Your task to perform on an android device: Open accessibility settings Image 0: 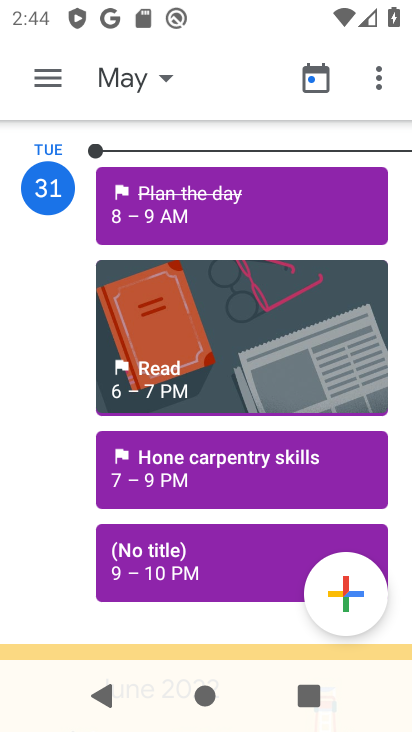
Step 0: press home button
Your task to perform on an android device: Open accessibility settings Image 1: 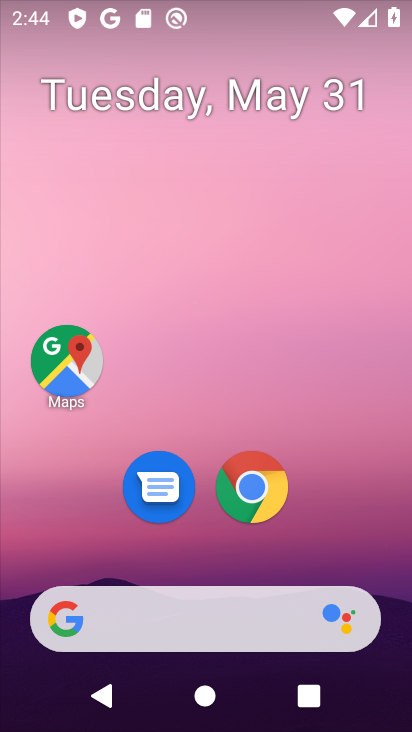
Step 1: drag from (120, 590) to (255, 69)
Your task to perform on an android device: Open accessibility settings Image 2: 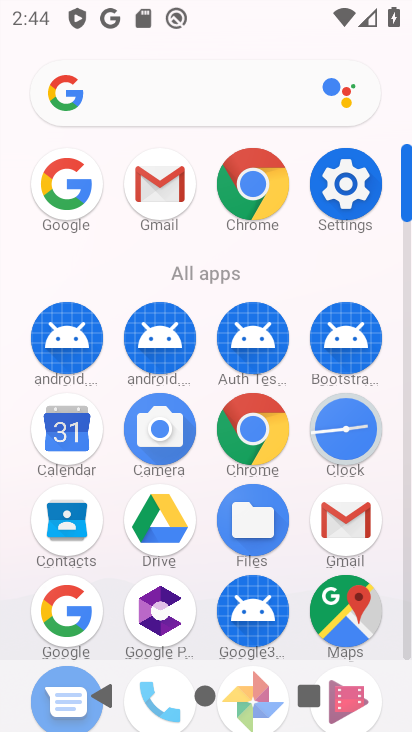
Step 2: drag from (203, 632) to (280, 280)
Your task to perform on an android device: Open accessibility settings Image 3: 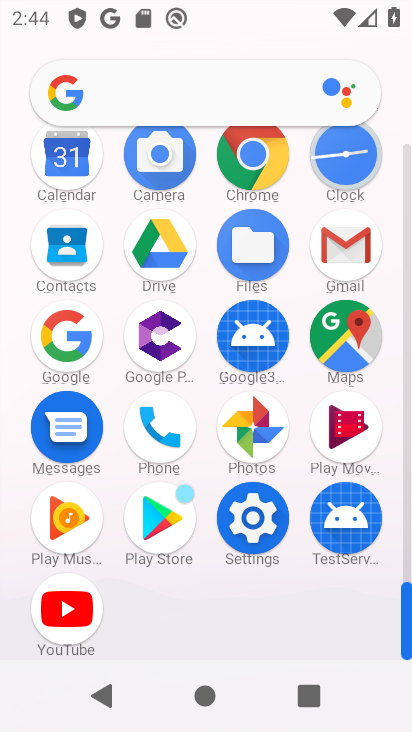
Step 3: click (243, 538)
Your task to perform on an android device: Open accessibility settings Image 4: 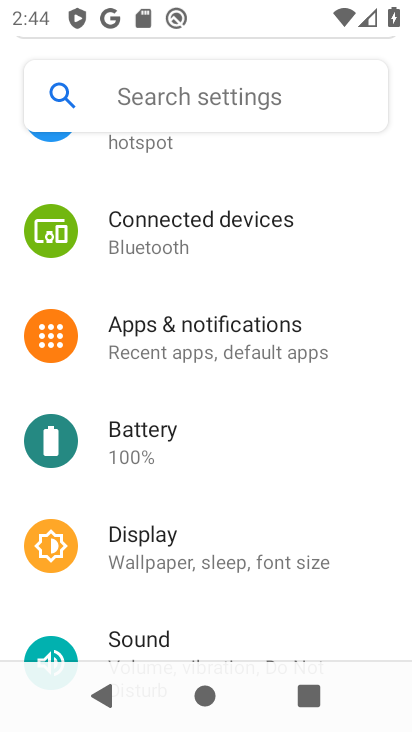
Step 4: drag from (224, 548) to (309, 150)
Your task to perform on an android device: Open accessibility settings Image 5: 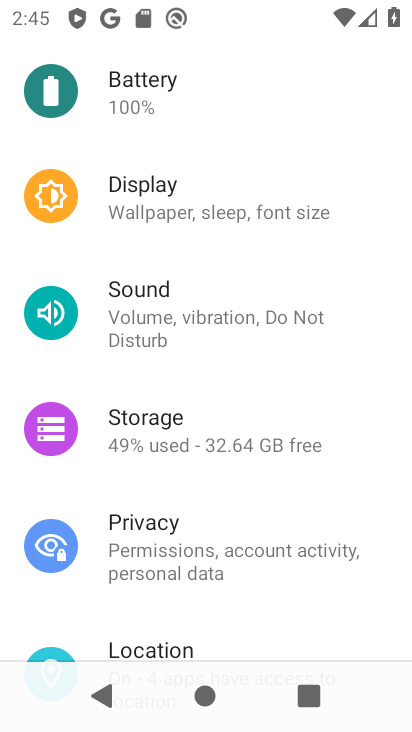
Step 5: drag from (209, 580) to (329, 133)
Your task to perform on an android device: Open accessibility settings Image 6: 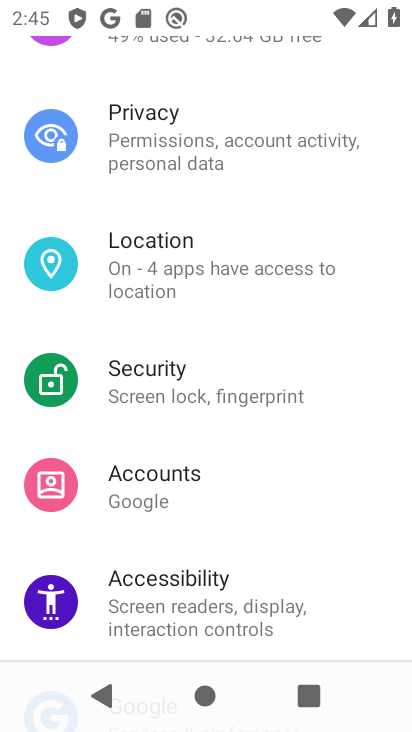
Step 6: click (223, 584)
Your task to perform on an android device: Open accessibility settings Image 7: 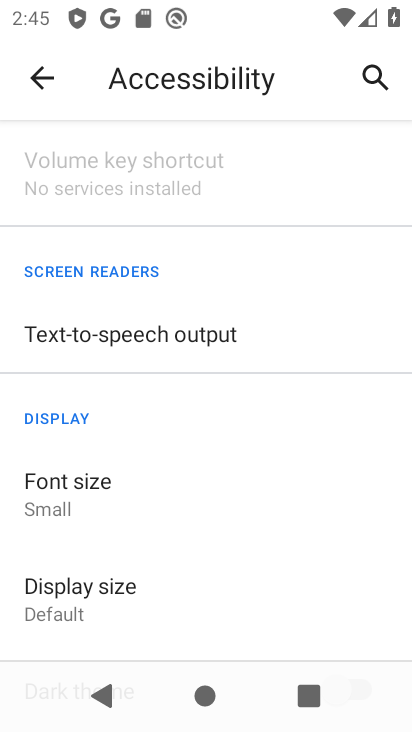
Step 7: task complete